Your task to perform on an android device: toggle pop-ups in chrome Image 0: 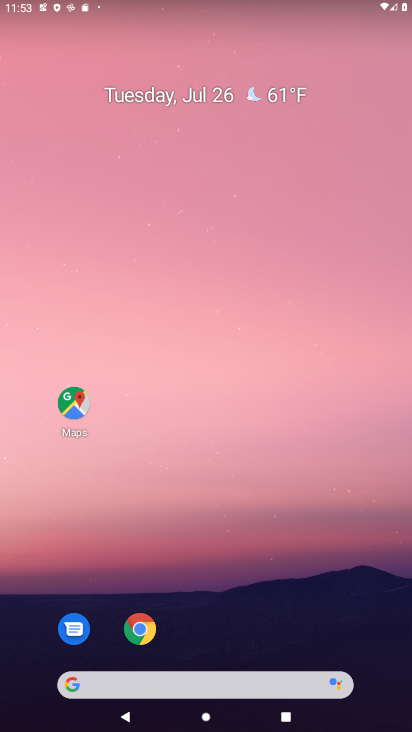
Step 0: click (154, 625)
Your task to perform on an android device: toggle pop-ups in chrome Image 1: 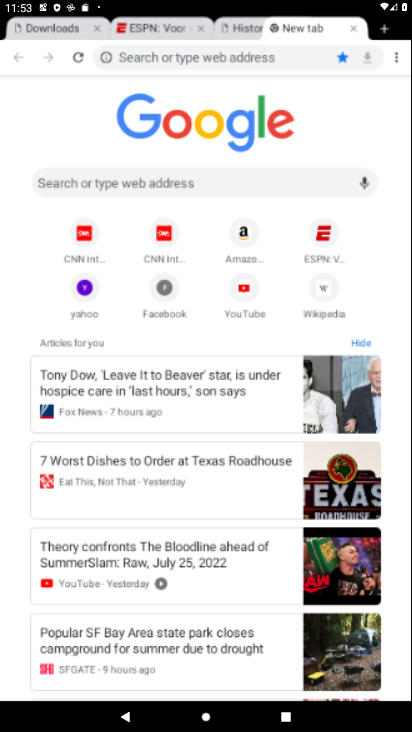
Step 1: task complete